Your task to perform on an android device: set default search engine in the chrome app Image 0: 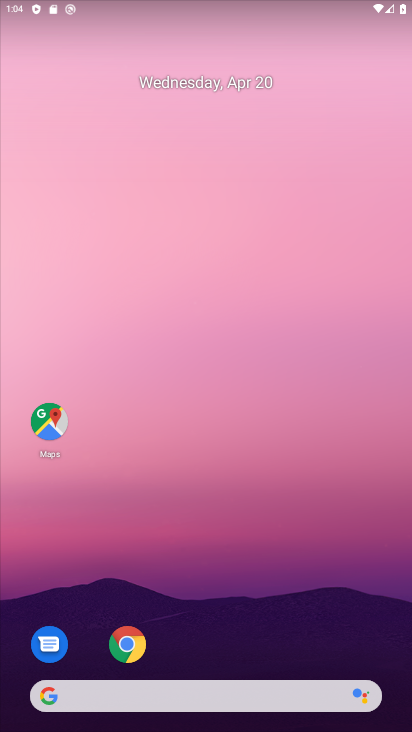
Step 0: click (128, 647)
Your task to perform on an android device: set default search engine in the chrome app Image 1: 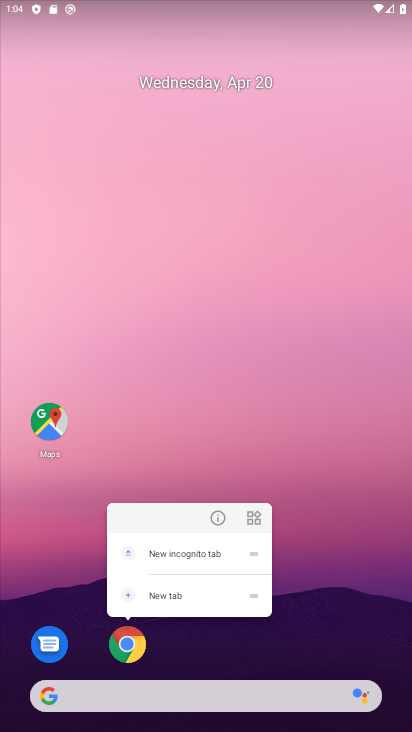
Step 1: click (125, 644)
Your task to perform on an android device: set default search engine in the chrome app Image 2: 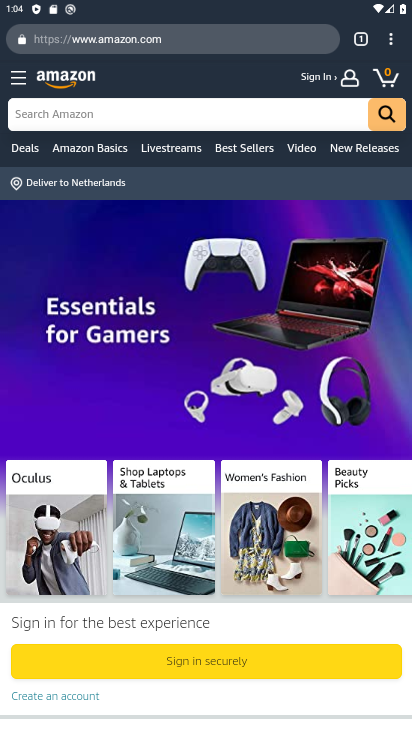
Step 2: click (393, 41)
Your task to perform on an android device: set default search engine in the chrome app Image 3: 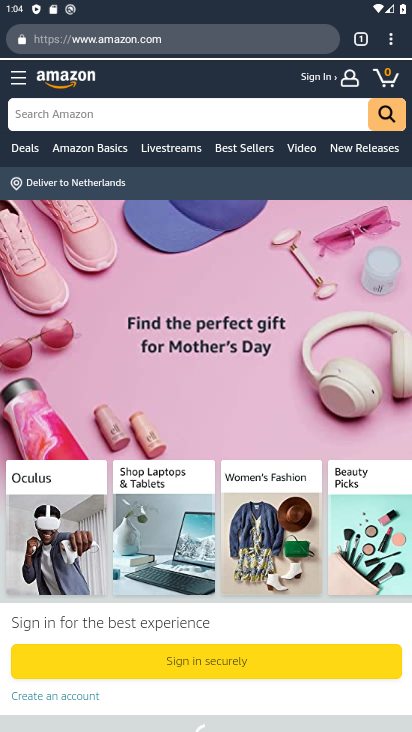
Step 3: click (389, 41)
Your task to perform on an android device: set default search engine in the chrome app Image 4: 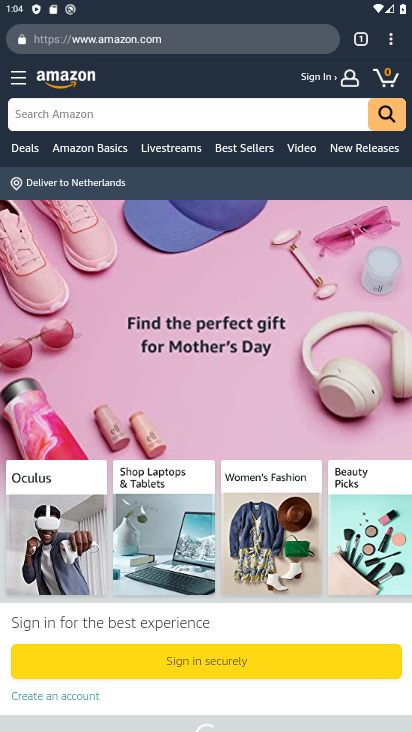
Step 4: click (390, 38)
Your task to perform on an android device: set default search engine in the chrome app Image 5: 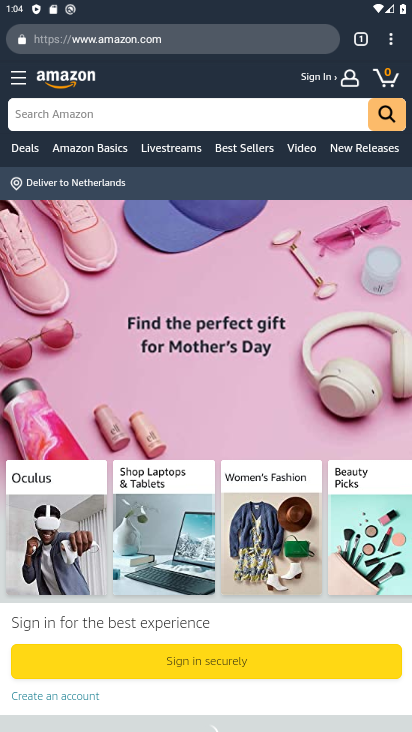
Step 5: drag from (198, 61) to (195, 138)
Your task to perform on an android device: set default search engine in the chrome app Image 6: 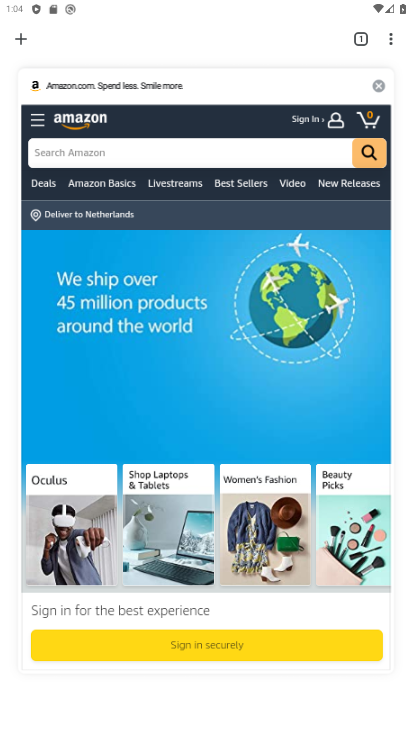
Step 6: click (377, 85)
Your task to perform on an android device: set default search engine in the chrome app Image 7: 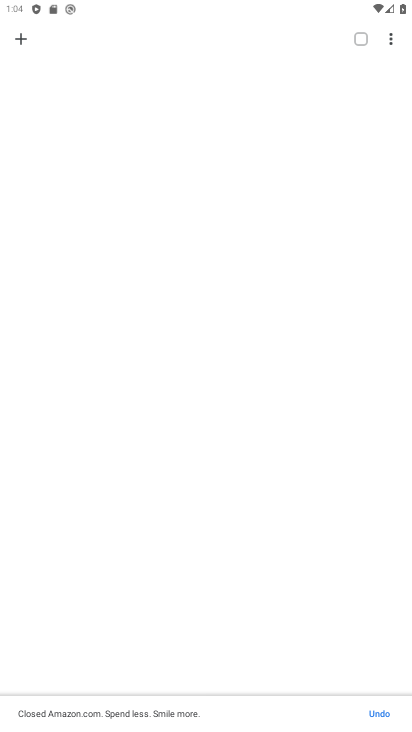
Step 7: click (390, 35)
Your task to perform on an android device: set default search engine in the chrome app Image 8: 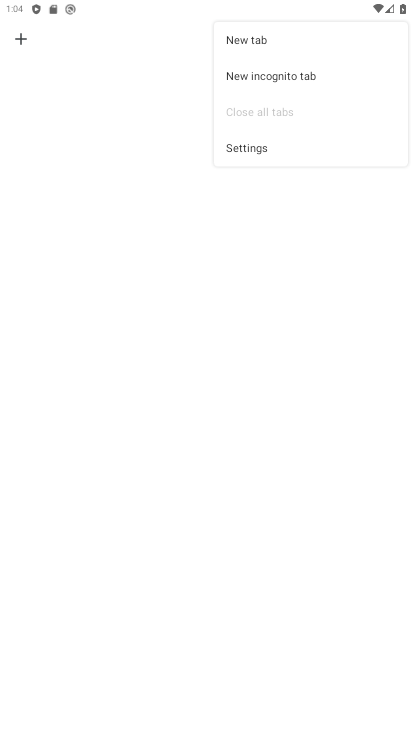
Step 8: click (254, 144)
Your task to perform on an android device: set default search engine in the chrome app Image 9: 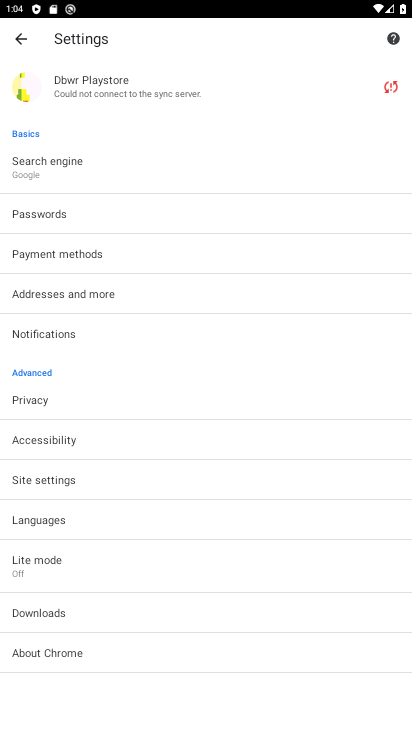
Step 9: click (73, 172)
Your task to perform on an android device: set default search engine in the chrome app Image 10: 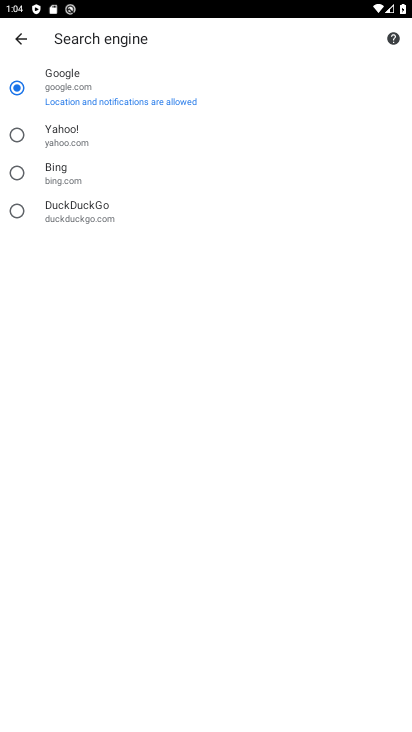
Step 10: click (18, 85)
Your task to perform on an android device: set default search engine in the chrome app Image 11: 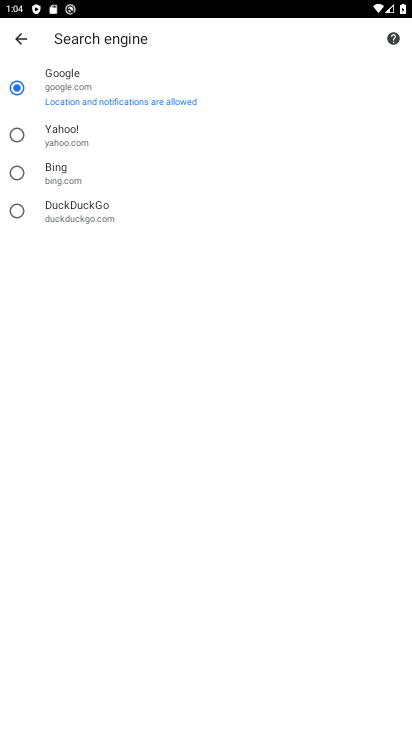
Step 11: task complete